Your task to perform on an android device: Set the phone to "Do not disturb". Image 0: 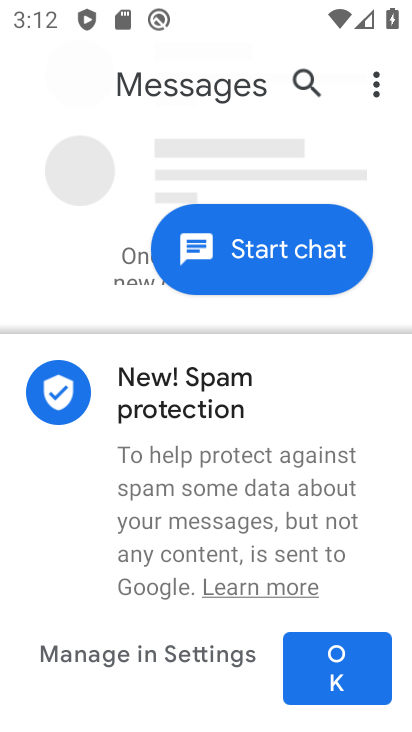
Step 0: press home button
Your task to perform on an android device: Set the phone to "Do not disturb". Image 1: 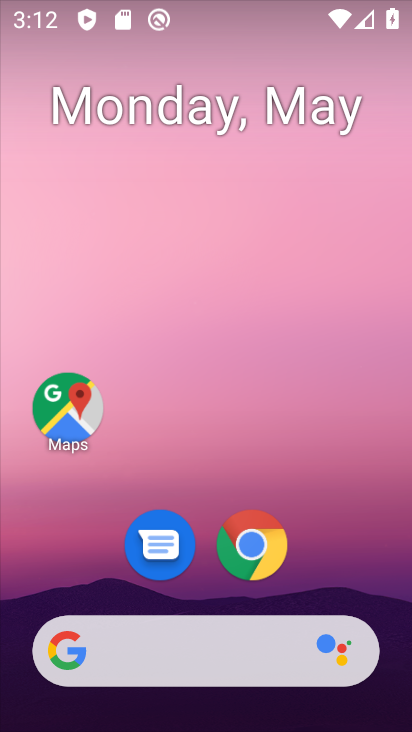
Step 1: drag from (349, 578) to (323, 171)
Your task to perform on an android device: Set the phone to "Do not disturb". Image 2: 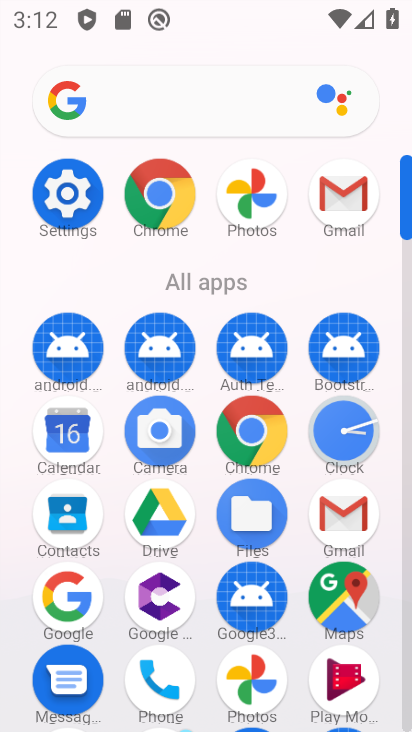
Step 2: click (78, 212)
Your task to perform on an android device: Set the phone to "Do not disturb". Image 3: 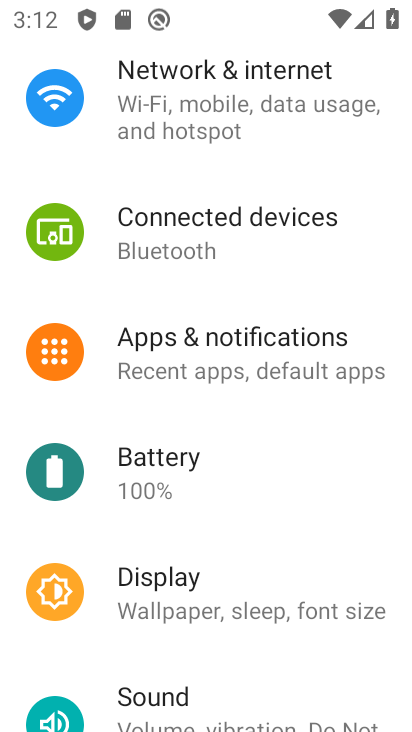
Step 3: drag from (247, 682) to (254, 386)
Your task to perform on an android device: Set the phone to "Do not disturb". Image 4: 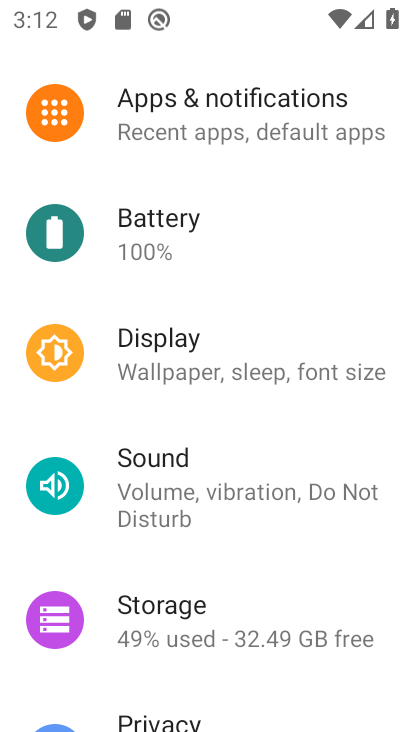
Step 4: click (218, 487)
Your task to perform on an android device: Set the phone to "Do not disturb". Image 5: 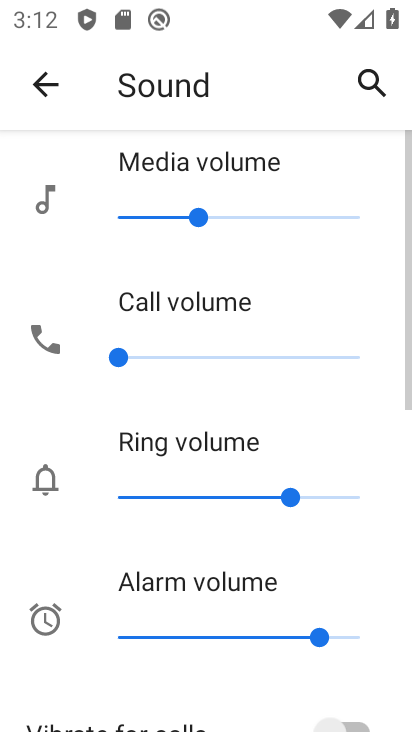
Step 5: drag from (216, 666) to (210, 304)
Your task to perform on an android device: Set the phone to "Do not disturb". Image 6: 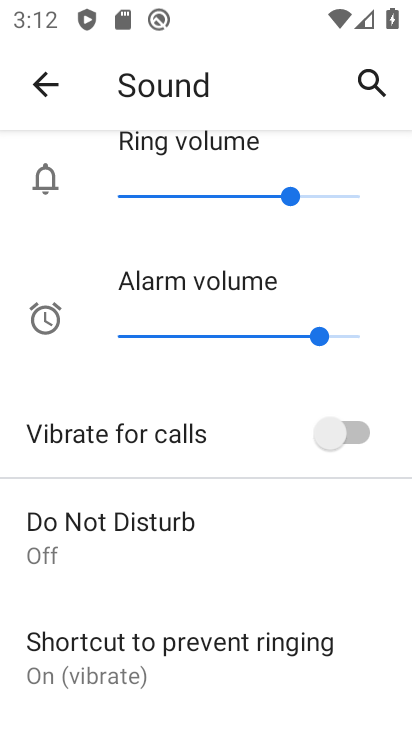
Step 6: click (132, 531)
Your task to perform on an android device: Set the phone to "Do not disturb". Image 7: 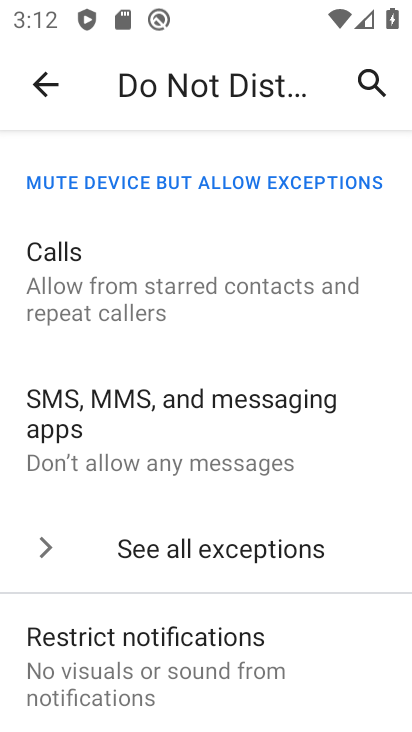
Step 7: drag from (272, 583) to (262, 187)
Your task to perform on an android device: Set the phone to "Do not disturb". Image 8: 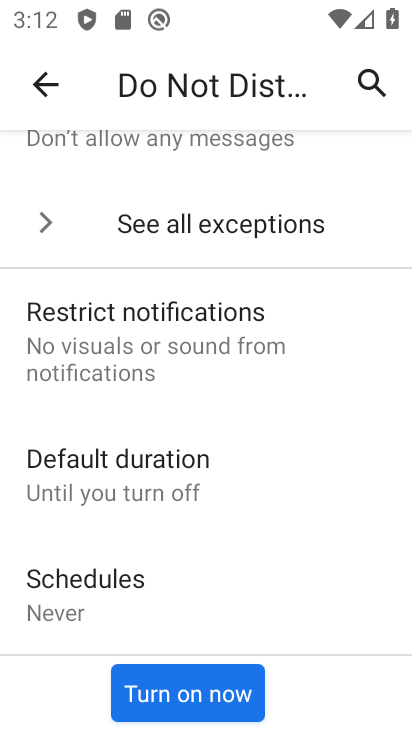
Step 8: click (206, 708)
Your task to perform on an android device: Set the phone to "Do not disturb". Image 9: 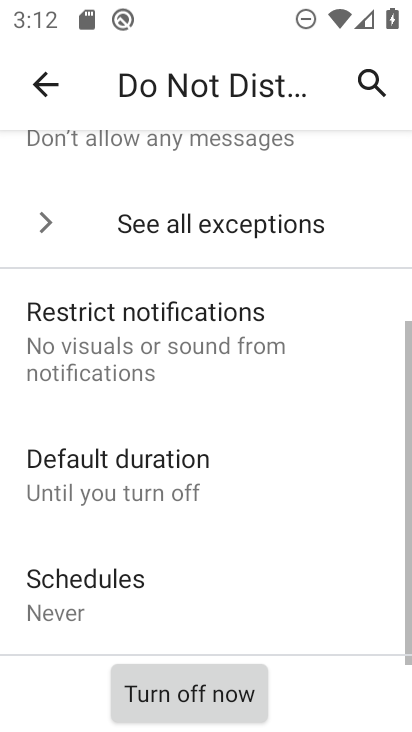
Step 9: task complete